Your task to perform on an android device: Show the shopping cart on amazon. Search for "energizer triple a" on amazon, select the first entry, add it to the cart, then select checkout. Image 0: 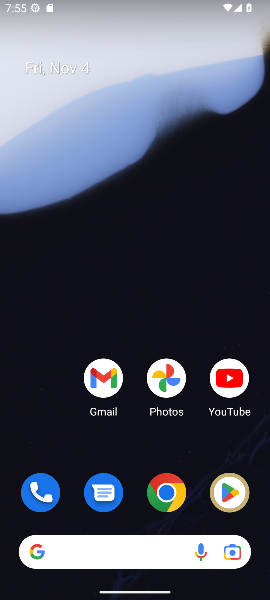
Step 0: drag from (132, 456) to (187, 78)
Your task to perform on an android device: Show the shopping cart on amazon. Search for "energizer triple a" on amazon, select the first entry, add it to the cart, then select checkout. Image 1: 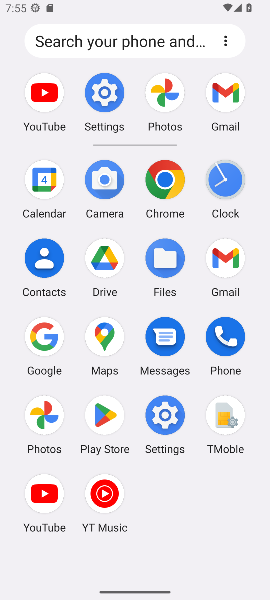
Step 1: click (167, 182)
Your task to perform on an android device: Show the shopping cart on amazon. Search for "energizer triple a" on amazon, select the first entry, add it to the cart, then select checkout. Image 2: 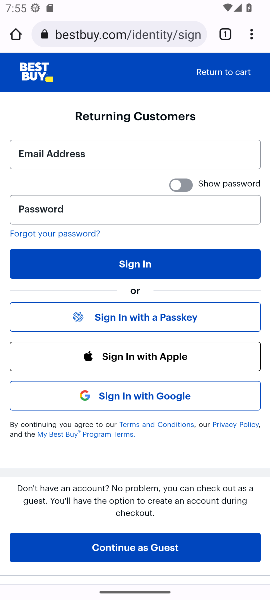
Step 2: click (100, 38)
Your task to perform on an android device: Show the shopping cart on amazon. Search for "energizer triple a" on amazon, select the first entry, add it to the cart, then select checkout. Image 3: 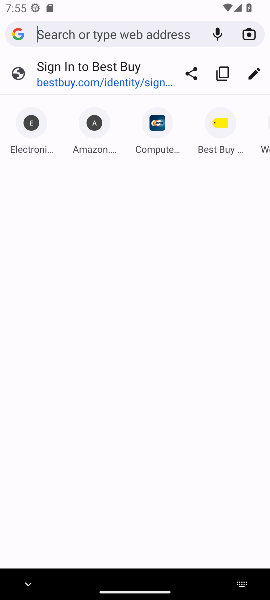
Step 3: type "amazon.com"
Your task to perform on an android device: Show the shopping cart on amazon. Search for "energizer triple a" on amazon, select the first entry, add it to the cart, then select checkout. Image 4: 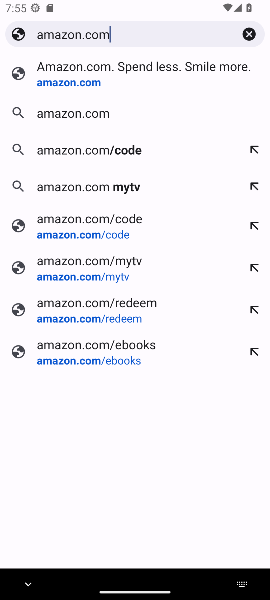
Step 4: press enter
Your task to perform on an android device: Show the shopping cart on amazon. Search for "energizer triple a" on amazon, select the first entry, add it to the cart, then select checkout. Image 5: 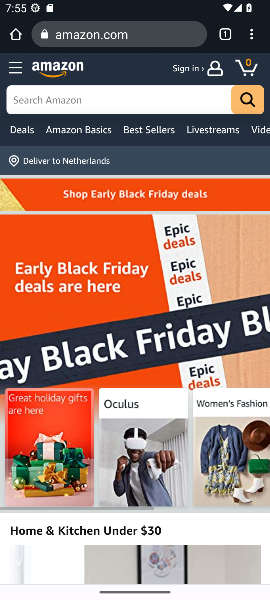
Step 5: click (246, 67)
Your task to perform on an android device: Show the shopping cart on amazon. Search for "energizer triple a" on amazon, select the first entry, add it to the cart, then select checkout. Image 6: 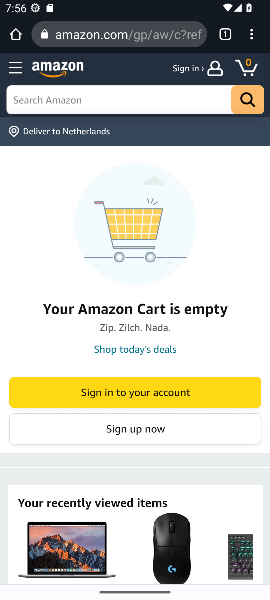
Step 6: click (175, 104)
Your task to perform on an android device: Show the shopping cart on amazon. Search for "energizer triple a" on amazon, select the first entry, add it to the cart, then select checkout. Image 7: 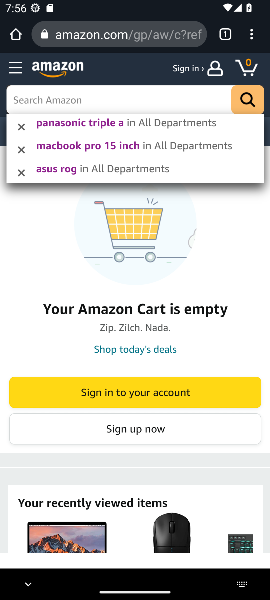
Step 7: type "energizer triple a"
Your task to perform on an android device: Show the shopping cart on amazon. Search for "energizer triple a" on amazon, select the first entry, add it to the cart, then select checkout. Image 8: 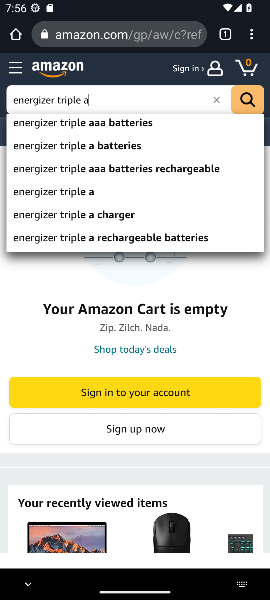
Step 8: press enter
Your task to perform on an android device: Show the shopping cart on amazon. Search for "energizer triple a" on amazon, select the first entry, add it to the cart, then select checkout. Image 9: 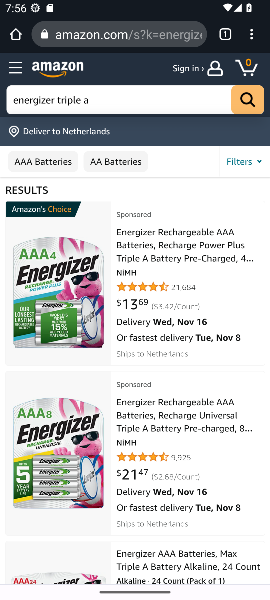
Step 9: drag from (125, 537) to (146, 198)
Your task to perform on an android device: Show the shopping cart on amazon. Search for "energizer triple a" on amazon, select the first entry, add it to the cart, then select checkout. Image 10: 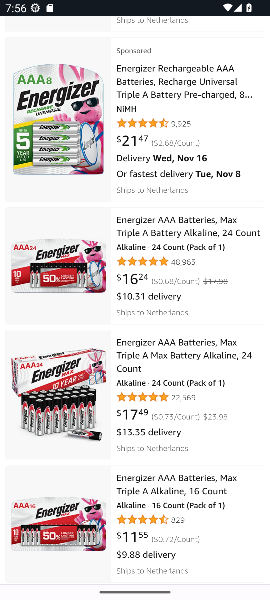
Step 10: drag from (171, 161) to (185, 286)
Your task to perform on an android device: Show the shopping cart on amazon. Search for "energizer triple a" on amazon, select the first entry, add it to the cart, then select checkout. Image 11: 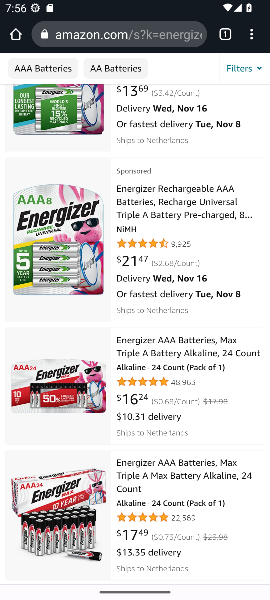
Step 11: click (144, 384)
Your task to perform on an android device: Show the shopping cart on amazon. Search for "energizer triple a" on amazon, select the first entry, add it to the cart, then select checkout. Image 12: 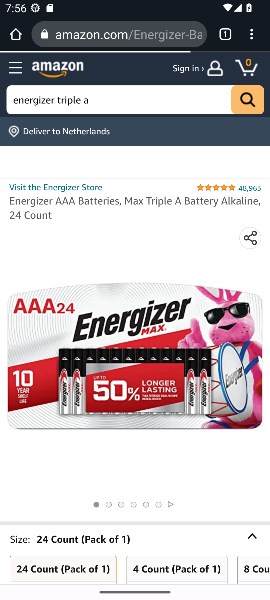
Step 12: drag from (167, 455) to (150, 115)
Your task to perform on an android device: Show the shopping cart on amazon. Search for "energizer triple a" on amazon, select the first entry, add it to the cart, then select checkout. Image 13: 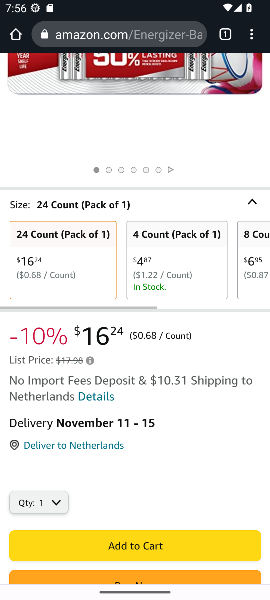
Step 13: click (170, 546)
Your task to perform on an android device: Show the shopping cart on amazon. Search for "energizer triple a" on amazon, select the first entry, add it to the cart, then select checkout. Image 14: 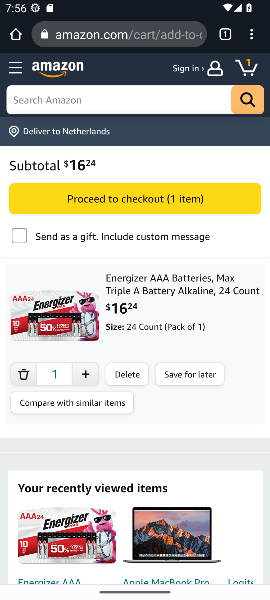
Step 14: click (194, 193)
Your task to perform on an android device: Show the shopping cart on amazon. Search for "energizer triple a" on amazon, select the first entry, add it to the cart, then select checkout. Image 15: 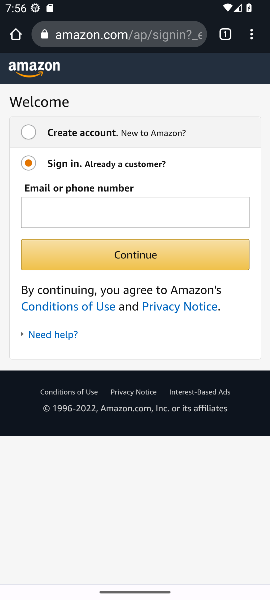
Step 15: task complete